Your task to perform on an android device: Go to internet settings Image 0: 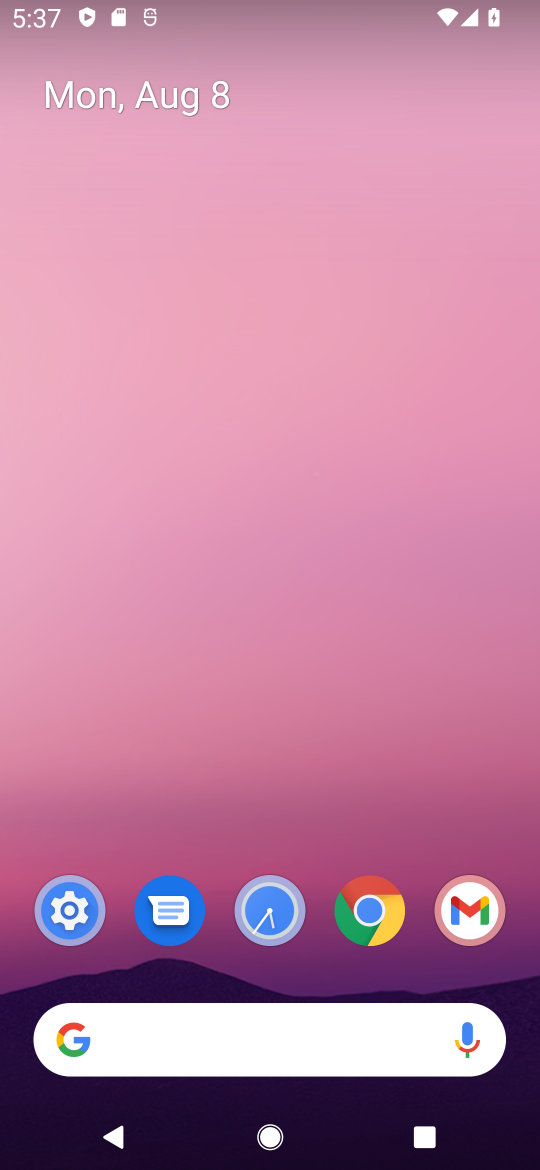
Step 0: click (73, 913)
Your task to perform on an android device: Go to internet settings Image 1: 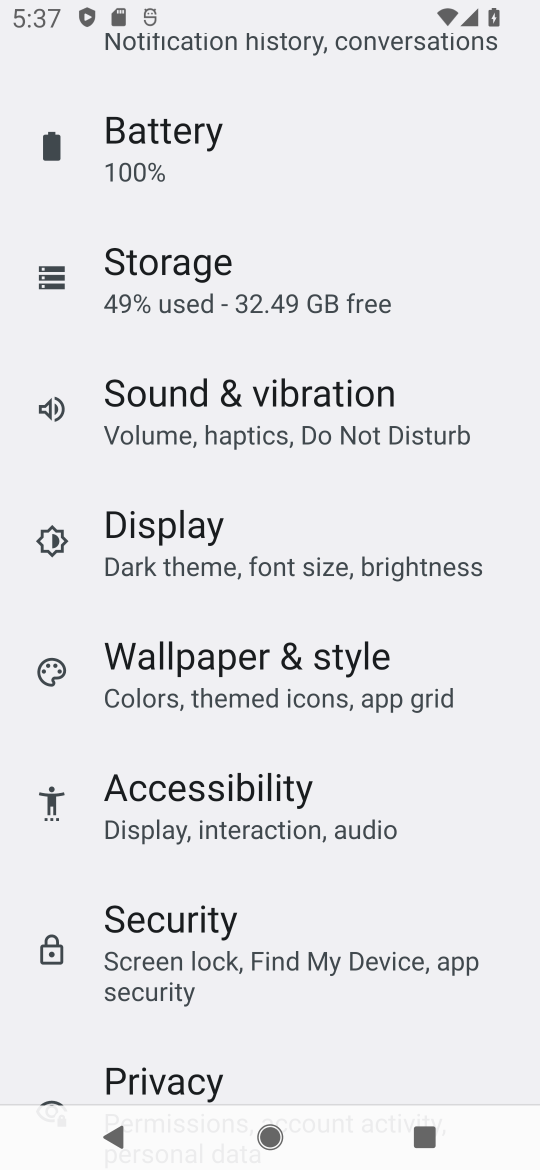
Step 1: drag from (263, 356) to (311, 682)
Your task to perform on an android device: Go to internet settings Image 2: 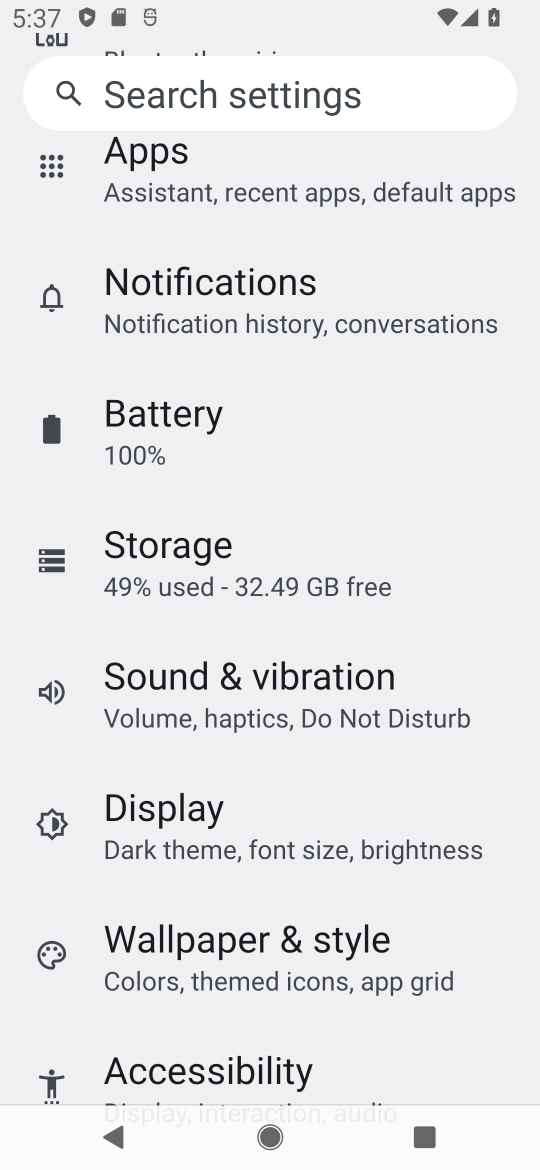
Step 2: drag from (239, 361) to (315, 688)
Your task to perform on an android device: Go to internet settings Image 3: 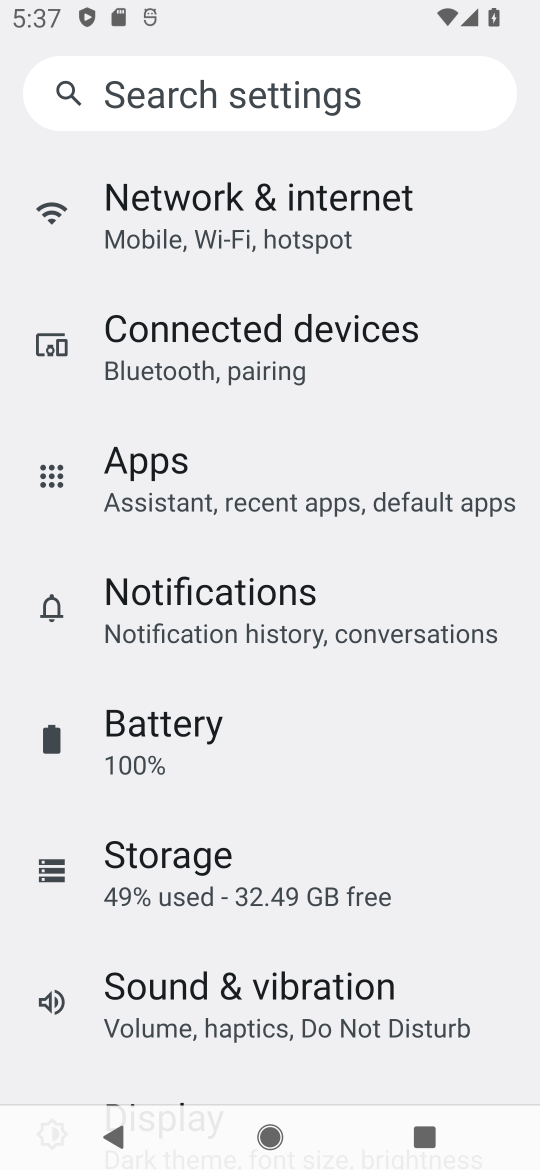
Step 3: drag from (184, 415) to (250, 626)
Your task to perform on an android device: Go to internet settings Image 4: 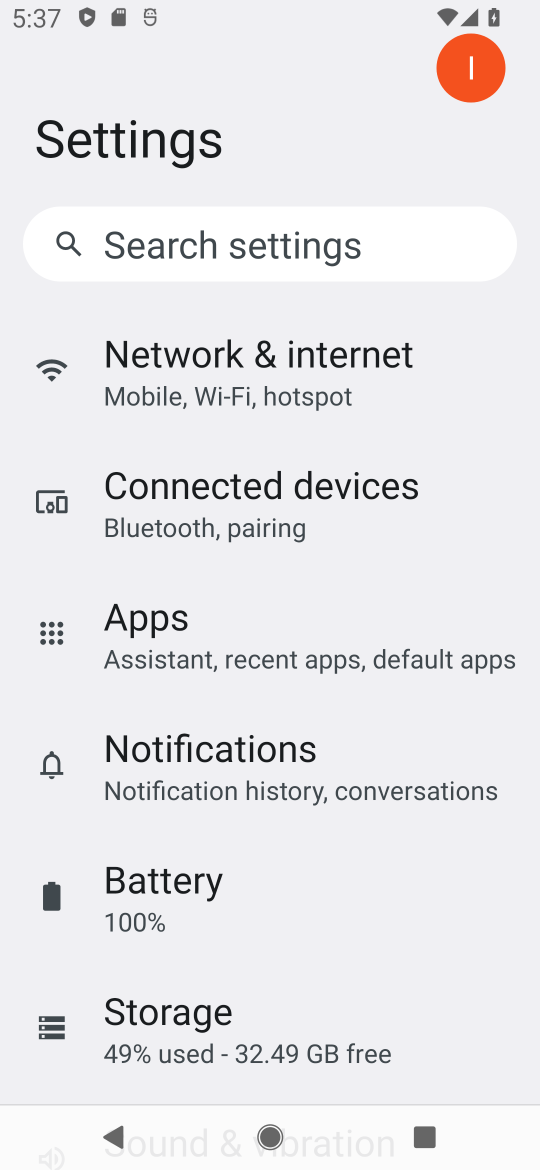
Step 4: click (256, 368)
Your task to perform on an android device: Go to internet settings Image 5: 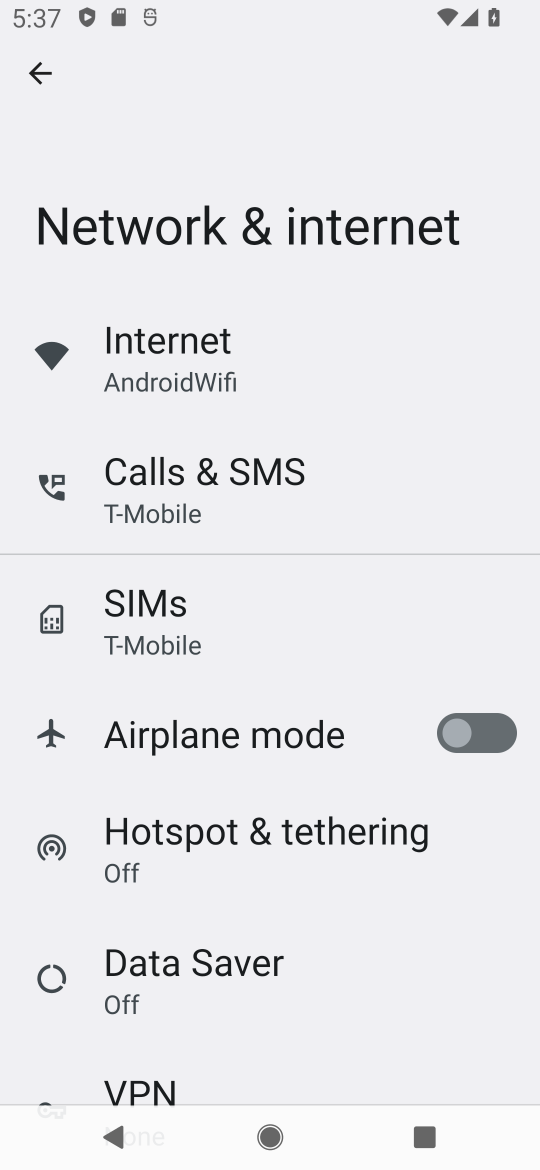
Step 5: click (175, 368)
Your task to perform on an android device: Go to internet settings Image 6: 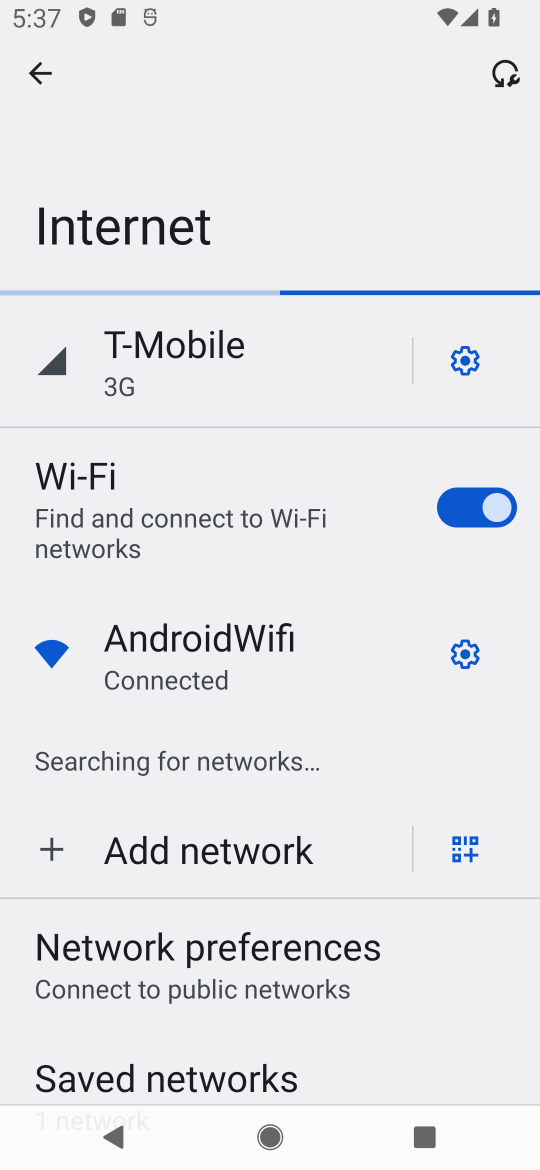
Step 6: task complete